Your task to perform on an android device: turn off notifications settings in the gmail app Image 0: 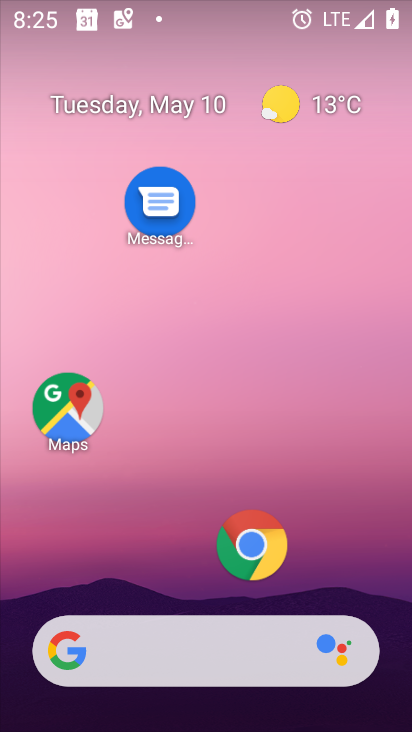
Step 0: drag from (219, 587) to (292, 105)
Your task to perform on an android device: turn off notifications settings in the gmail app Image 1: 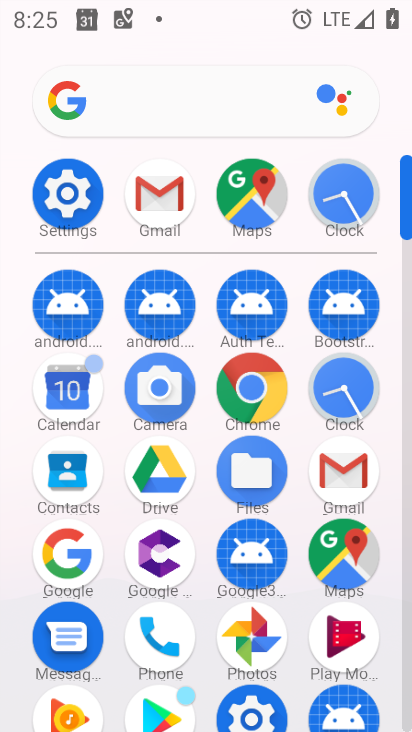
Step 1: click (162, 189)
Your task to perform on an android device: turn off notifications settings in the gmail app Image 2: 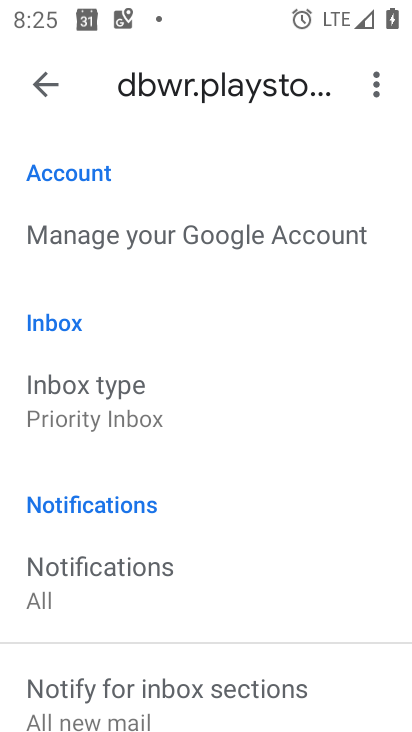
Step 2: click (45, 90)
Your task to perform on an android device: turn off notifications settings in the gmail app Image 3: 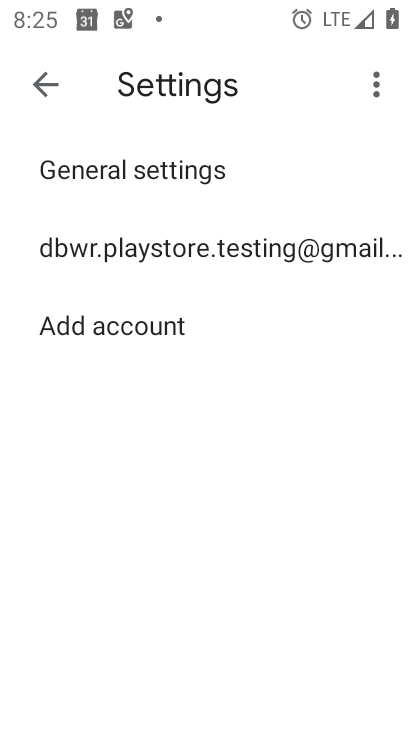
Step 3: click (182, 156)
Your task to perform on an android device: turn off notifications settings in the gmail app Image 4: 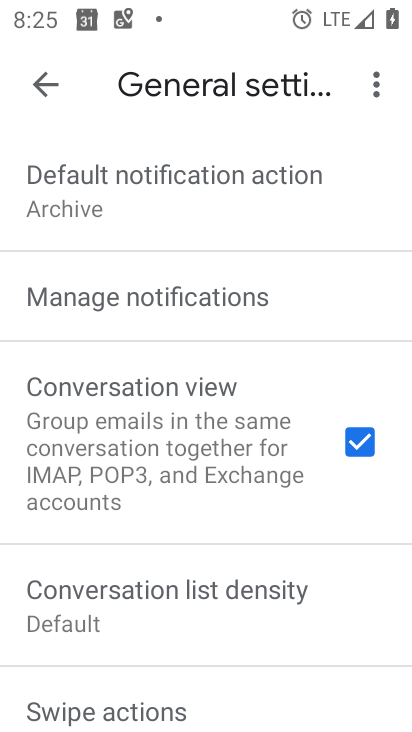
Step 4: click (298, 301)
Your task to perform on an android device: turn off notifications settings in the gmail app Image 5: 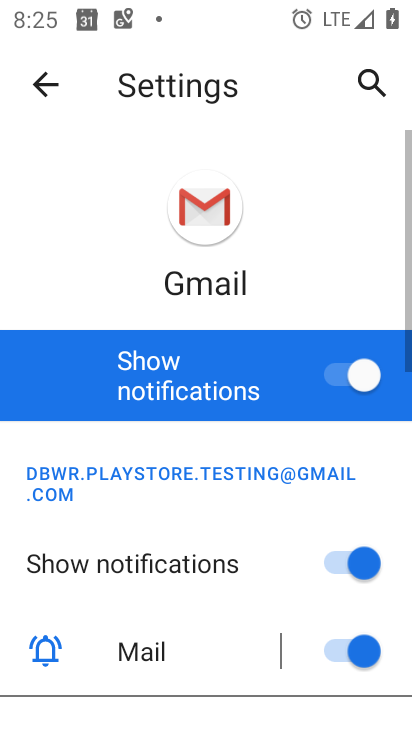
Step 5: click (340, 372)
Your task to perform on an android device: turn off notifications settings in the gmail app Image 6: 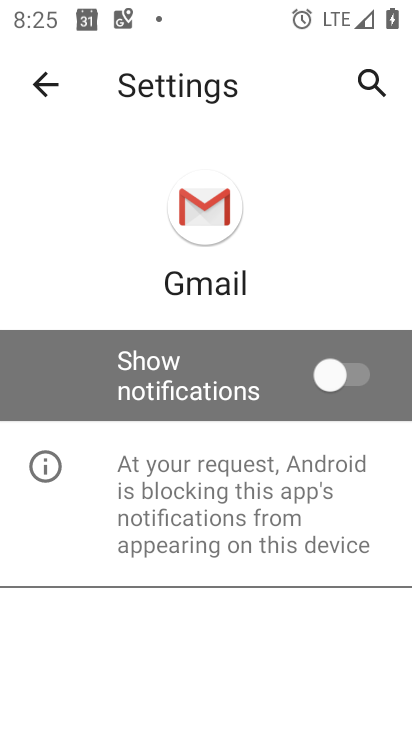
Step 6: task complete